Your task to perform on an android device: Go to settings Image 0: 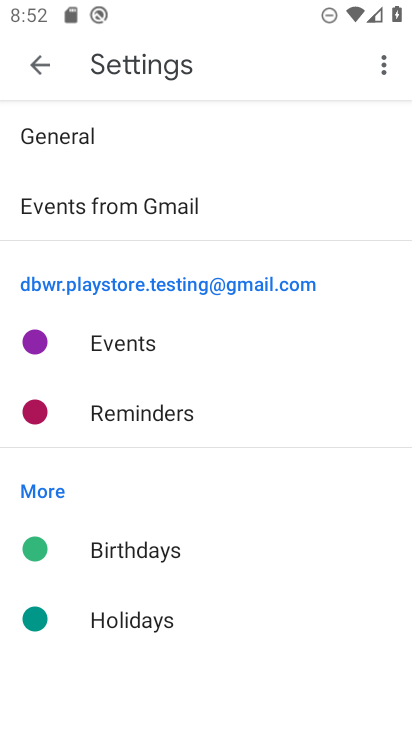
Step 0: press home button
Your task to perform on an android device: Go to settings Image 1: 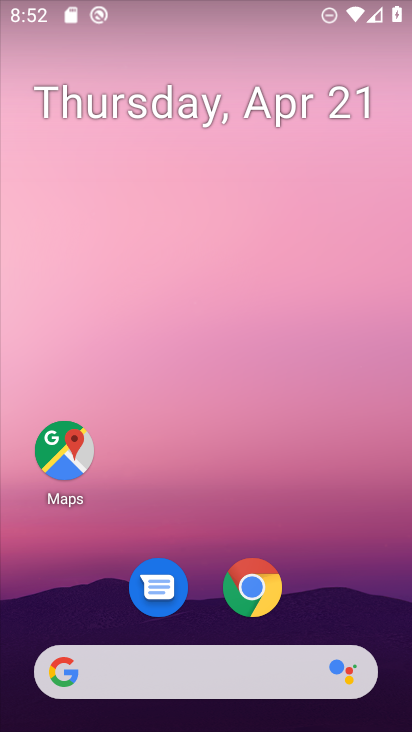
Step 1: drag from (308, 545) to (266, 134)
Your task to perform on an android device: Go to settings Image 2: 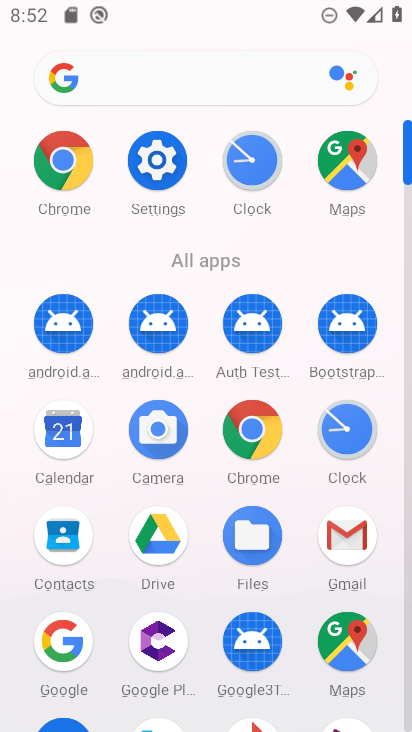
Step 2: click (147, 158)
Your task to perform on an android device: Go to settings Image 3: 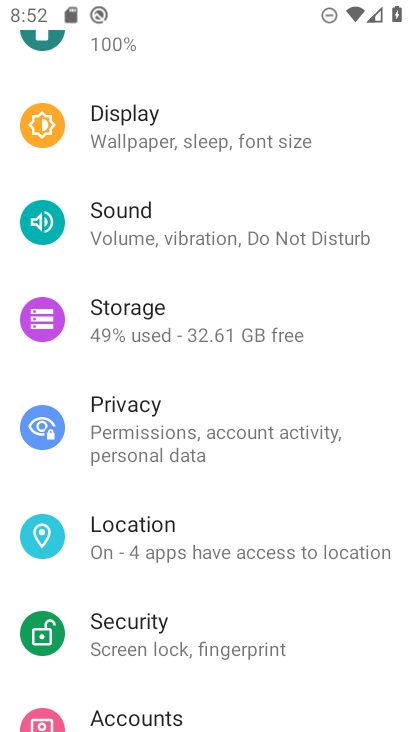
Step 3: task complete